Your task to perform on an android device: Go to notification settings Image 0: 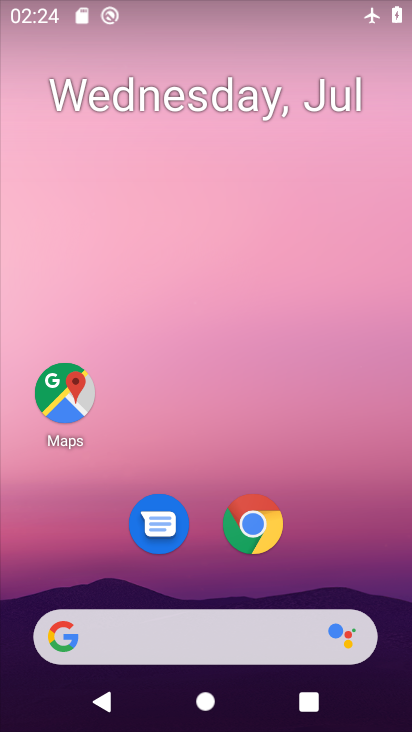
Step 0: drag from (333, 468) to (311, 87)
Your task to perform on an android device: Go to notification settings Image 1: 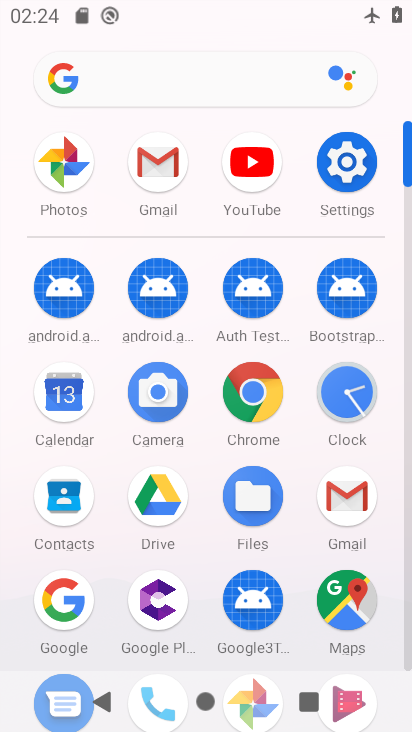
Step 1: click (347, 168)
Your task to perform on an android device: Go to notification settings Image 2: 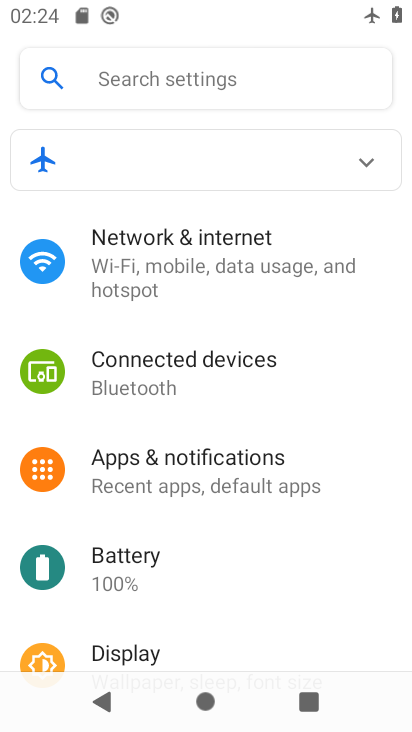
Step 2: click (236, 479)
Your task to perform on an android device: Go to notification settings Image 3: 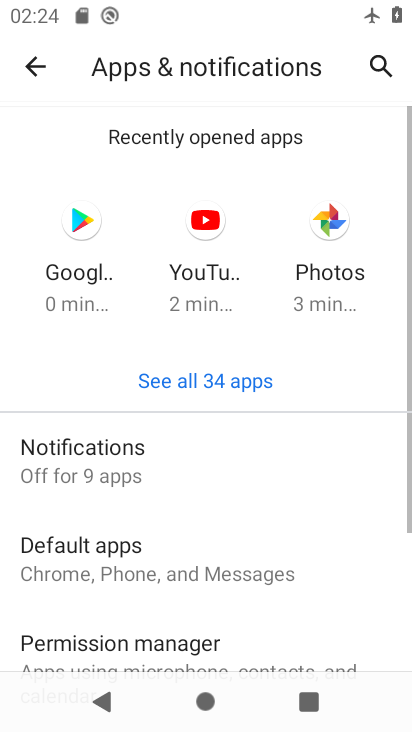
Step 3: click (120, 450)
Your task to perform on an android device: Go to notification settings Image 4: 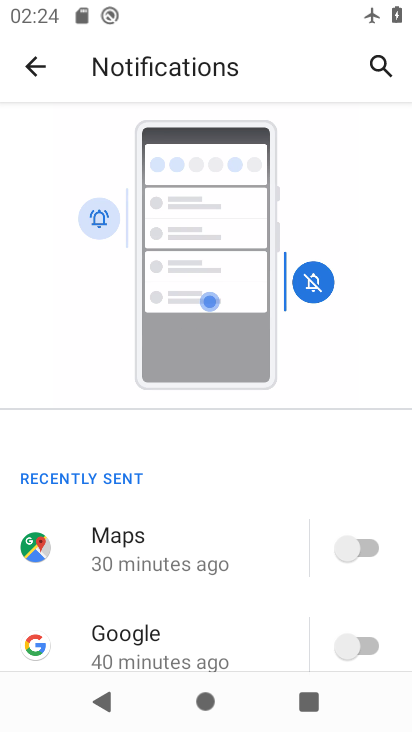
Step 4: task complete